Your task to perform on an android device: turn on priority inbox in the gmail app Image 0: 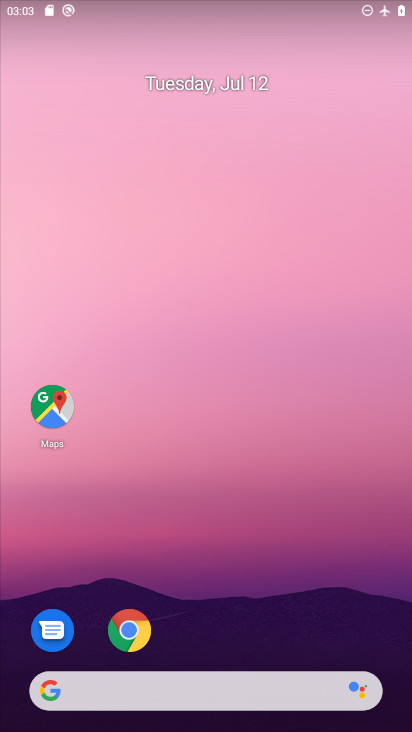
Step 0: drag from (390, 648) to (351, 183)
Your task to perform on an android device: turn on priority inbox in the gmail app Image 1: 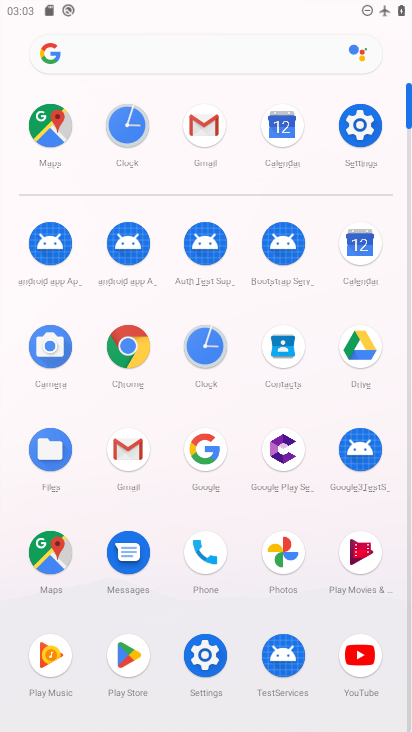
Step 1: click (127, 446)
Your task to perform on an android device: turn on priority inbox in the gmail app Image 2: 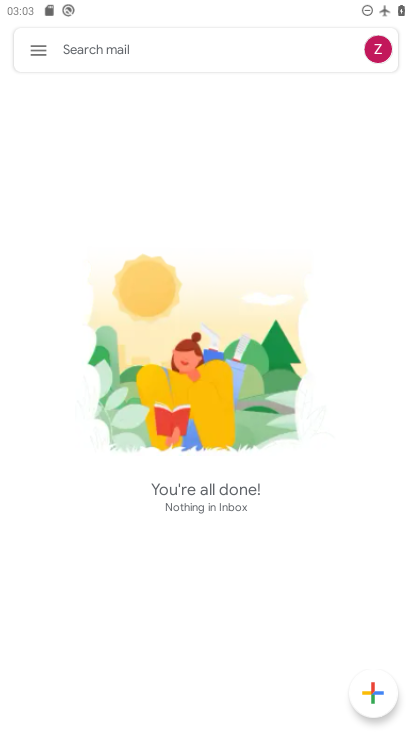
Step 2: click (38, 49)
Your task to perform on an android device: turn on priority inbox in the gmail app Image 3: 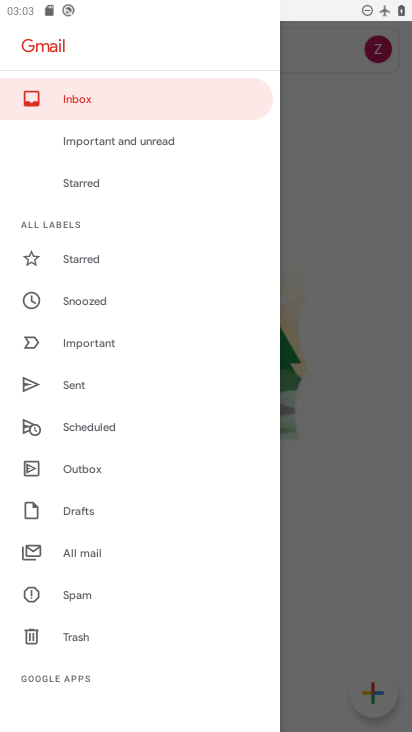
Step 3: drag from (168, 646) to (176, 307)
Your task to perform on an android device: turn on priority inbox in the gmail app Image 4: 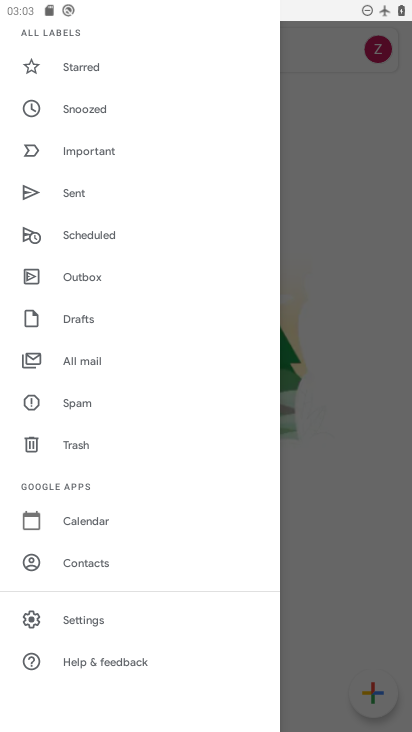
Step 4: click (79, 625)
Your task to perform on an android device: turn on priority inbox in the gmail app Image 5: 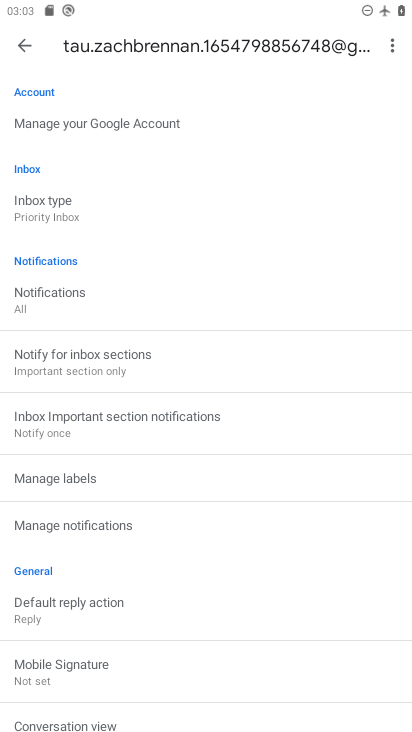
Step 5: drag from (216, 561) to (215, 489)
Your task to perform on an android device: turn on priority inbox in the gmail app Image 6: 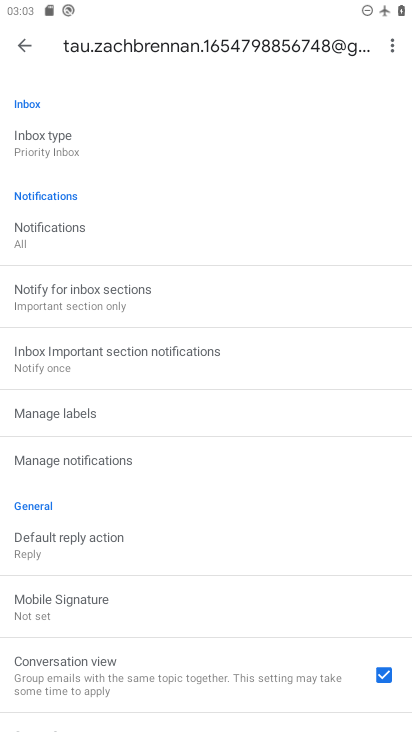
Step 6: click (38, 141)
Your task to perform on an android device: turn on priority inbox in the gmail app Image 7: 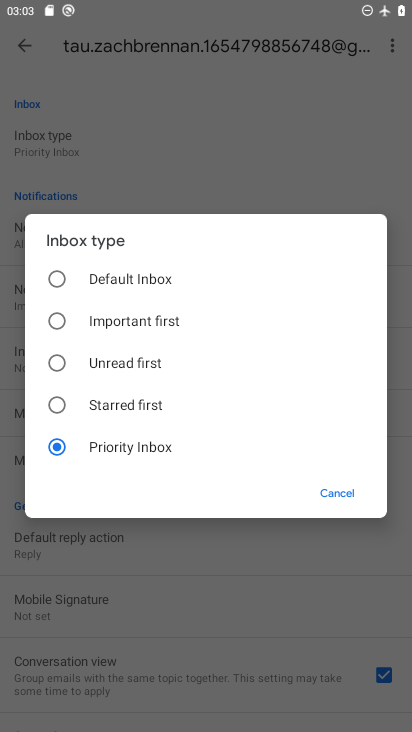
Step 7: click (350, 494)
Your task to perform on an android device: turn on priority inbox in the gmail app Image 8: 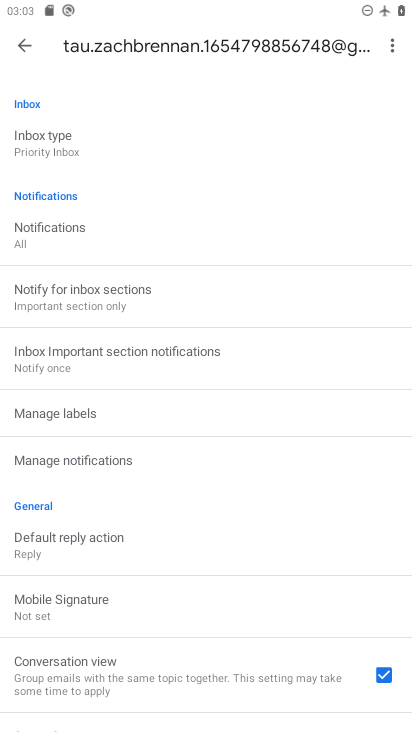
Step 8: task complete